Your task to perform on an android device: move an email to a new category in the gmail app Image 0: 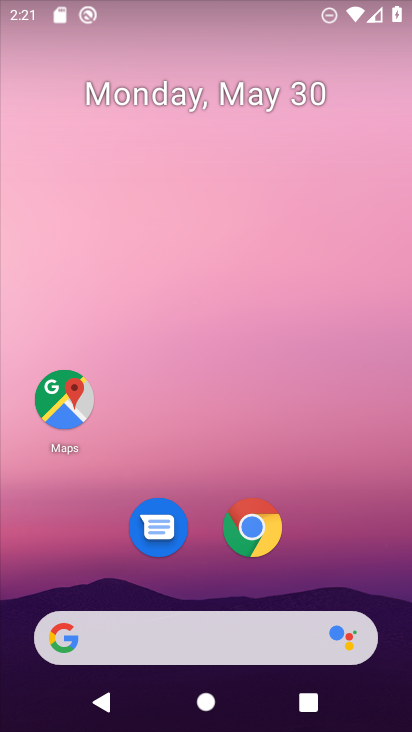
Step 0: drag from (278, 578) to (278, 187)
Your task to perform on an android device: move an email to a new category in the gmail app Image 1: 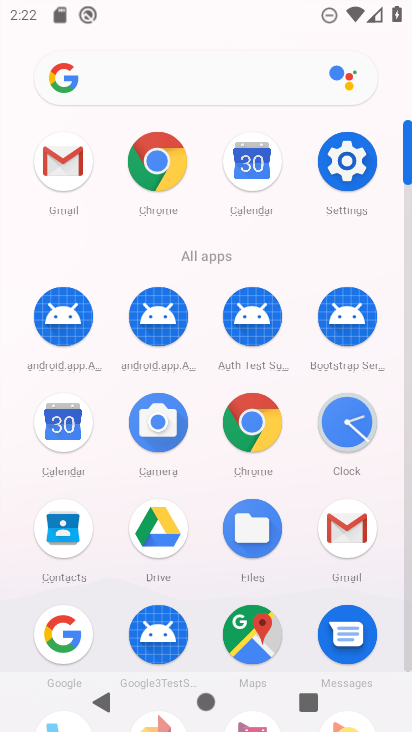
Step 1: click (344, 547)
Your task to perform on an android device: move an email to a new category in the gmail app Image 2: 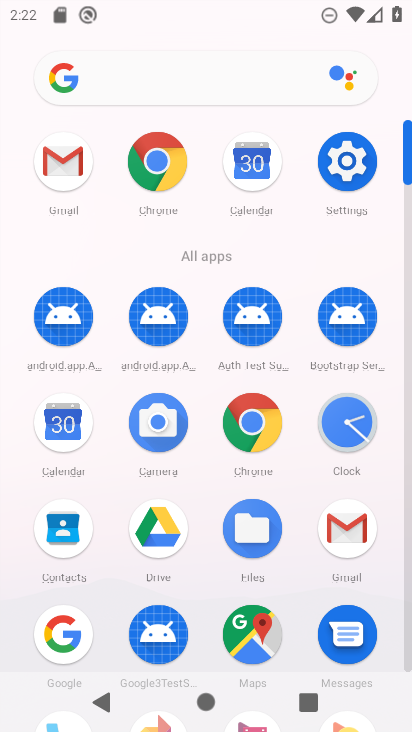
Step 2: click (344, 547)
Your task to perform on an android device: move an email to a new category in the gmail app Image 3: 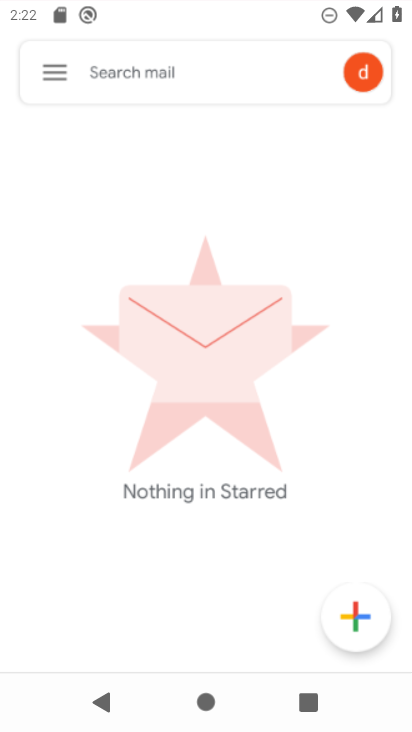
Step 3: click (346, 550)
Your task to perform on an android device: move an email to a new category in the gmail app Image 4: 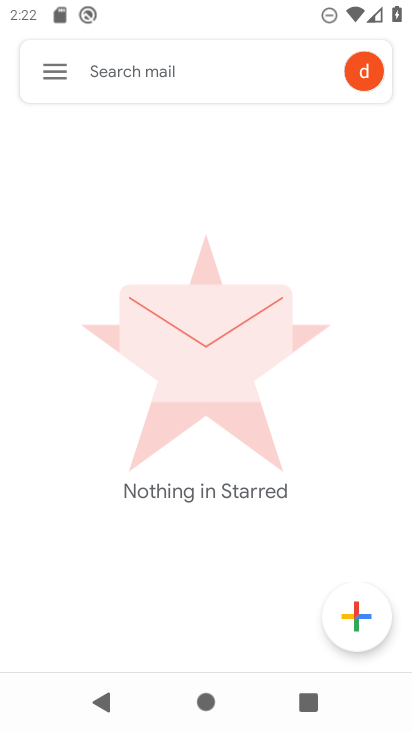
Step 4: click (346, 550)
Your task to perform on an android device: move an email to a new category in the gmail app Image 5: 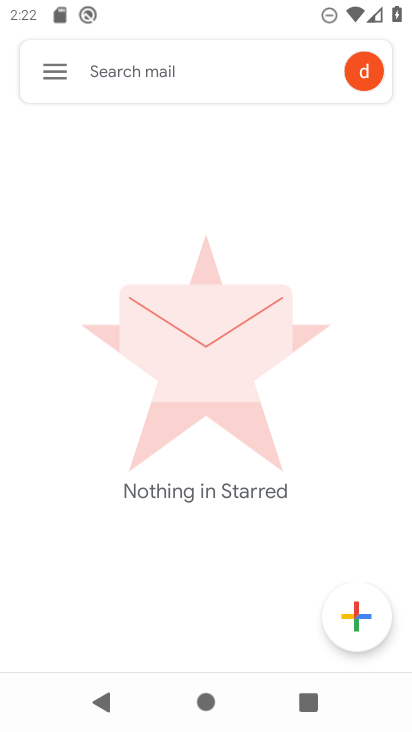
Step 5: click (345, 550)
Your task to perform on an android device: move an email to a new category in the gmail app Image 6: 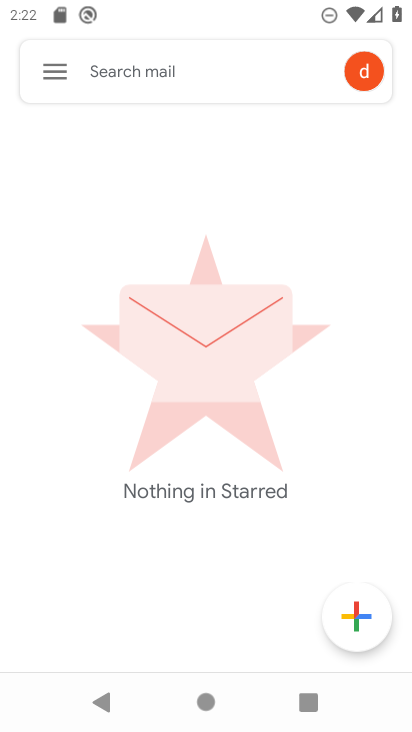
Step 6: click (58, 74)
Your task to perform on an android device: move an email to a new category in the gmail app Image 7: 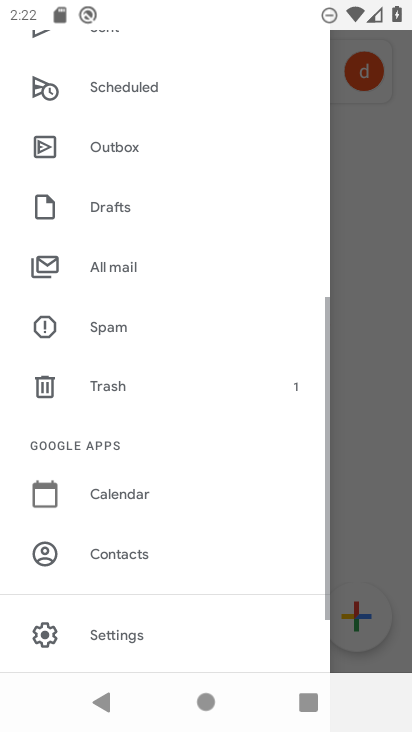
Step 7: click (52, 73)
Your task to perform on an android device: move an email to a new category in the gmail app Image 8: 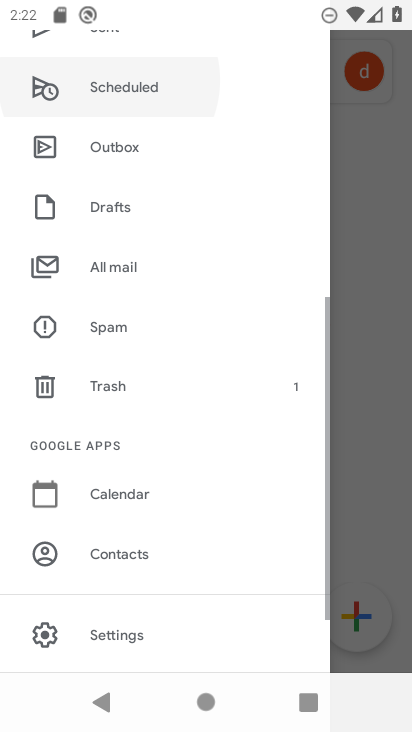
Step 8: click (52, 73)
Your task to perform on an android device: move an email to a new category in the gmail app Image 9: 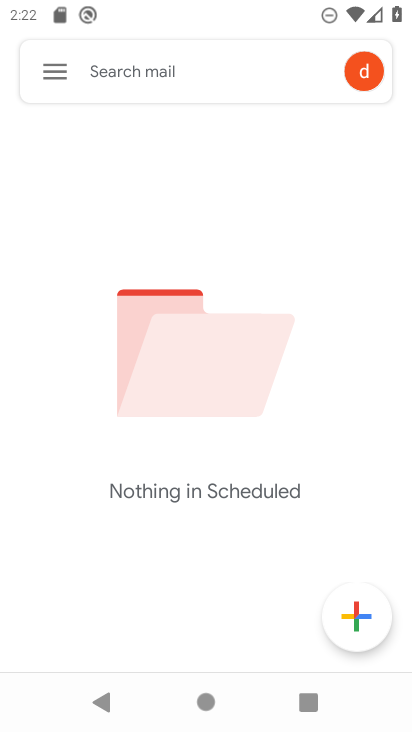
Step 9: click (63, 74)
Your task to perform on an android device: move an email to a new category in the gmail app Image 10: 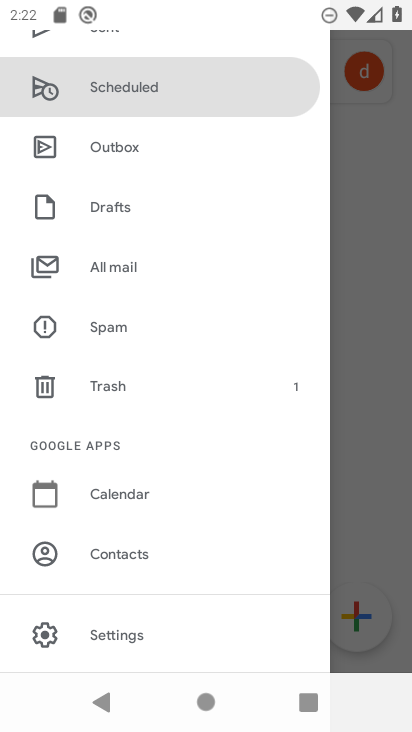
Step 10: click (109, 629)
Your task to perform on an android device: move an email to a new category in the gmail app Image 11: 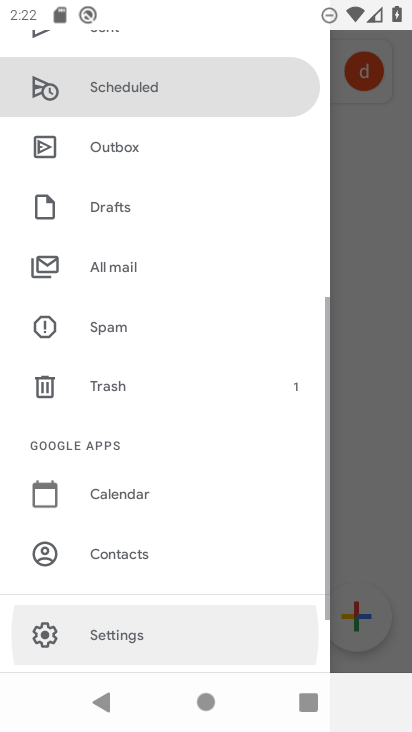
Step 11: click (109, 633)
Your task to perform on an android device: move an email to a new category in the gmail app Image 12: 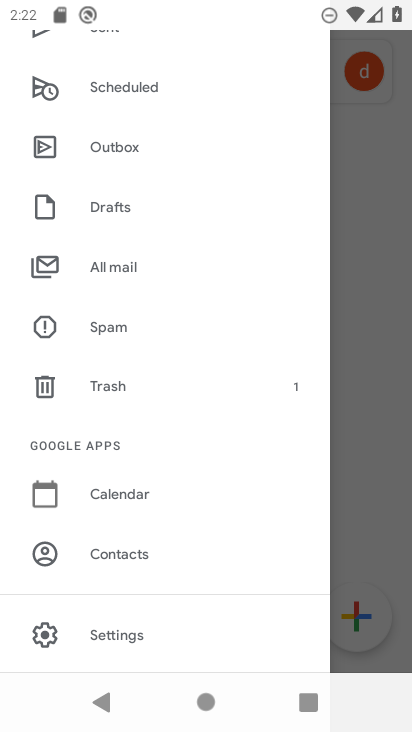
Step 12: click (122, 632)
Your task to perform on an android device: move an email to a new category in the gmail app Image 13: 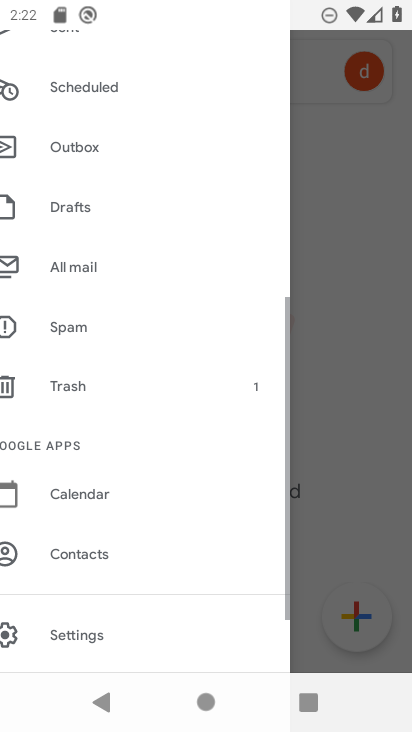
Step 13: click (120, 634)
Your task to perform on an android device: move an email to a new category in the gmail app Image 14: 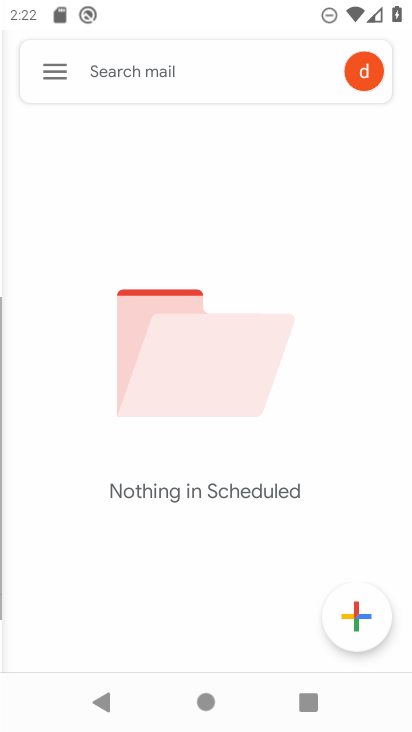
Step 14: click (118, 641)
Your task to perform on an android device: move an email to a new category in the gmail app Image 15: 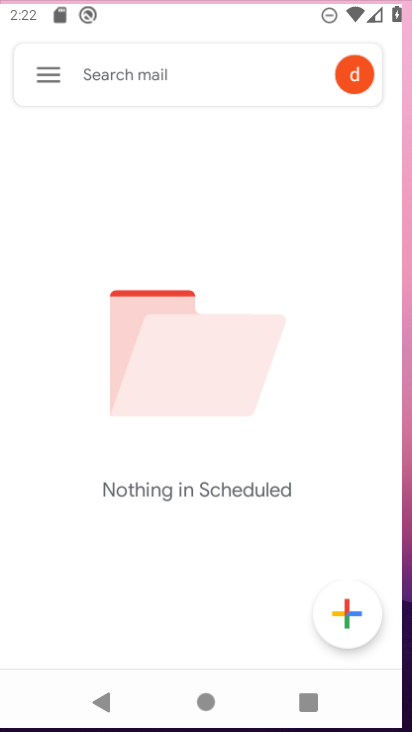
Step 15: click (118, 642)
Your task to perform on an android device: move an email to a new category in the gmail app Image 16: 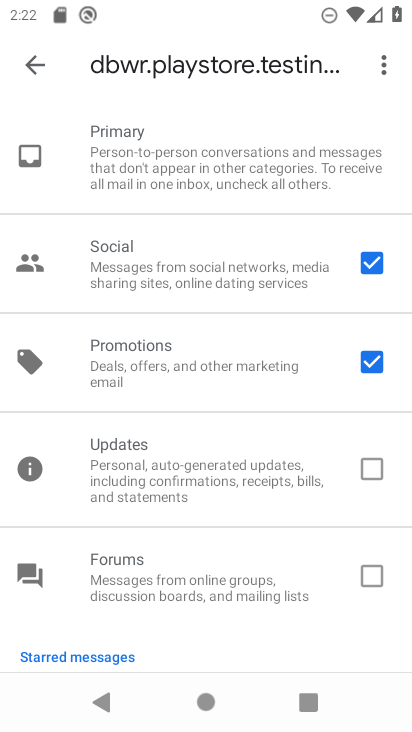
Step 16: click (25, 63)
Your task to perform on an android device: move an email to a new category in the gmail app Image 17: 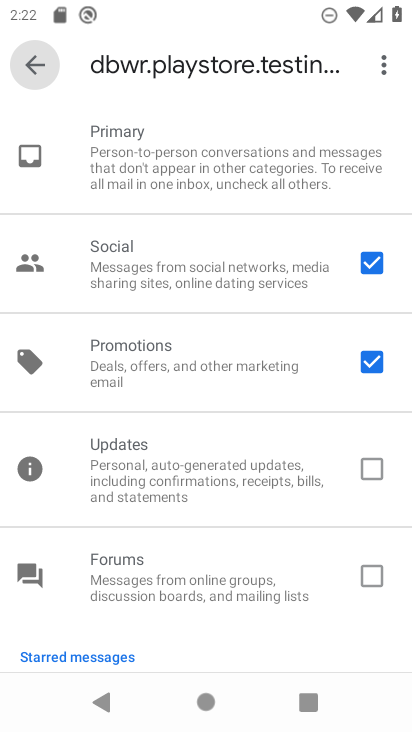
Step 17: click (24, 64)
Your task to perform on an android device: move an email to a new category in the gmail app Image 18: 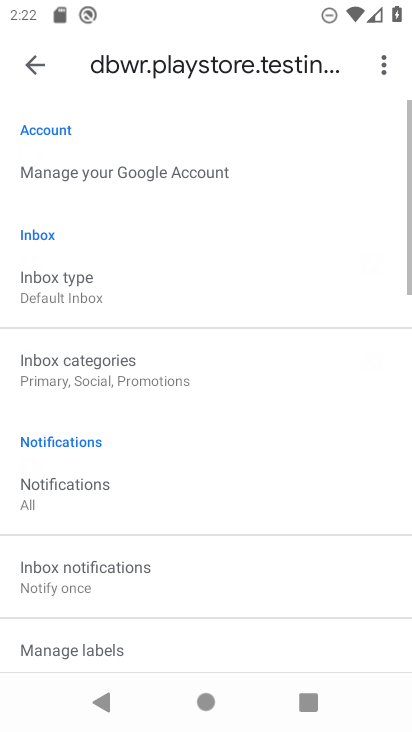
Step 18: click (24, 65)
Your task to perform on an android device: move an email to a new category in the gmail app Image 19: 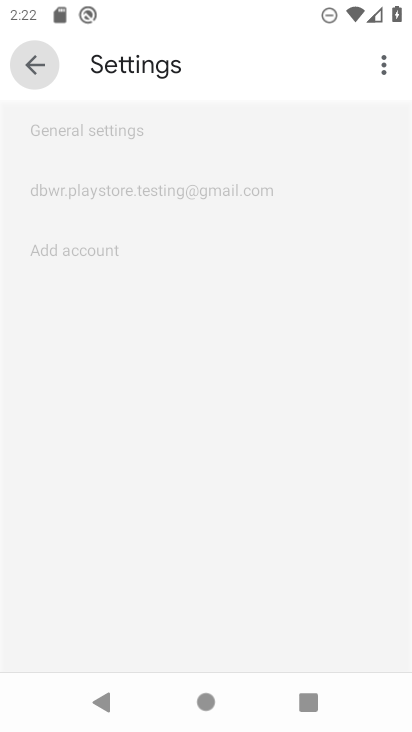
Step 19: click (27, 66)
Your task to perform on an android device: move an email to a new category in the gmail app Image 20: 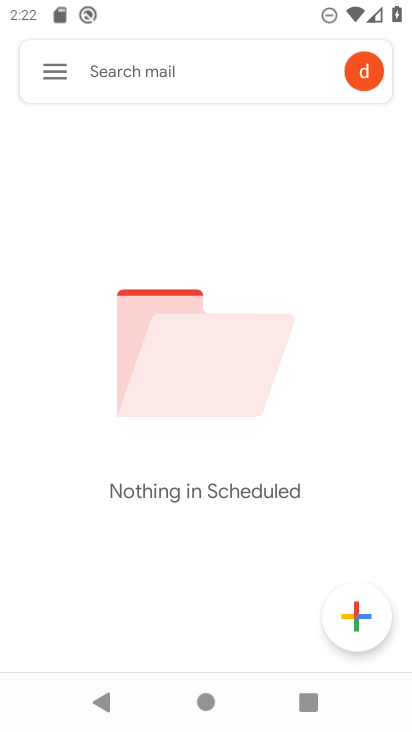
Step 20: click (53, 46)
Your task to perform on an android device: move an email to a new category in the gmail app Image 21: 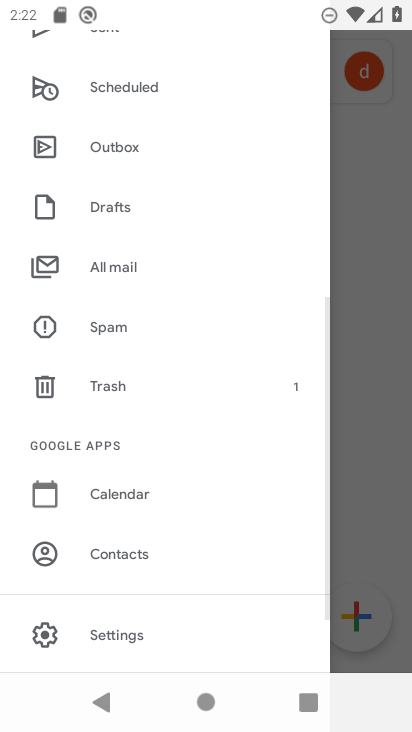
Step 21: click (105, 265)
Your task to perform on an android device: move an email to a new category in the gmail app Image 22: 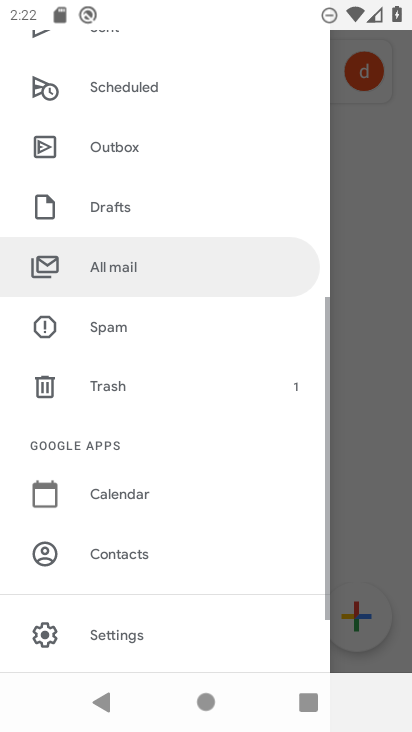
Step 22: click (105, 265)
Your task to perform on an android device: move an email to a new category in the gmail app Image 23: 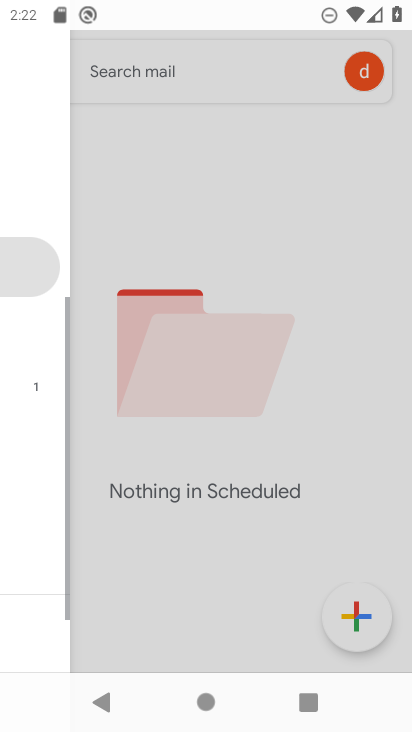
Step 23: click (105, 265)
Your task to perform on an android device: move an email to a new category in the gmail app Image 24: 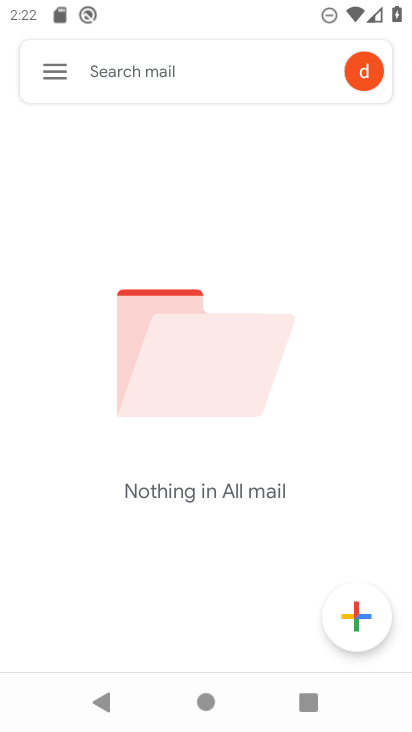
Step 24: task complete